Your task to perform on an android device: turn off sleep mode Image 0: 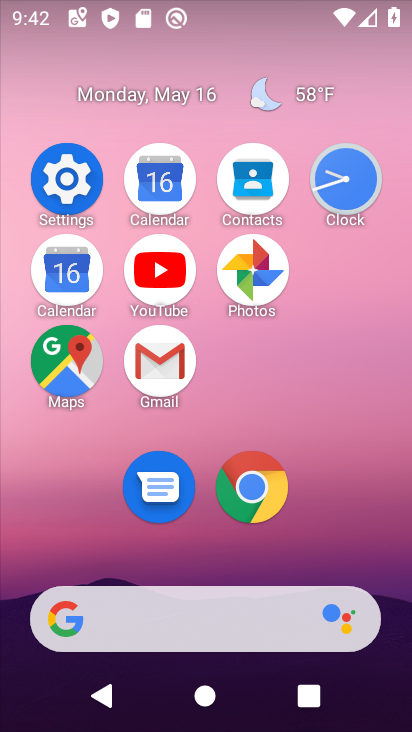
Step 0: click (73, 187)
Your task to perform on an android device: turn off sleep mode Image 1: 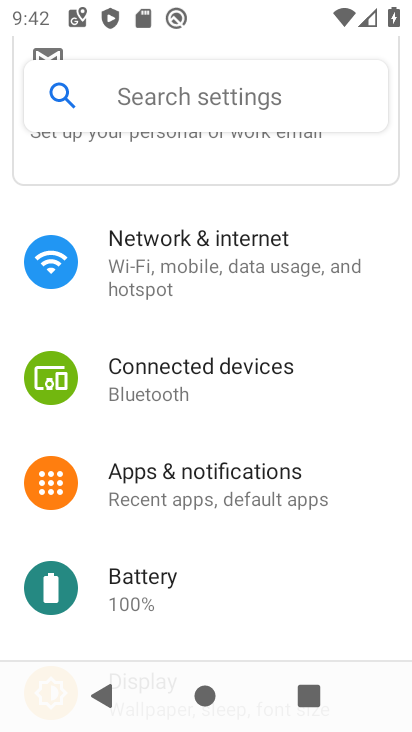
Step 1: drag from (223, 284) to (242, 215)
Your task to perform on an android device: turn off sleep mode Image 2: 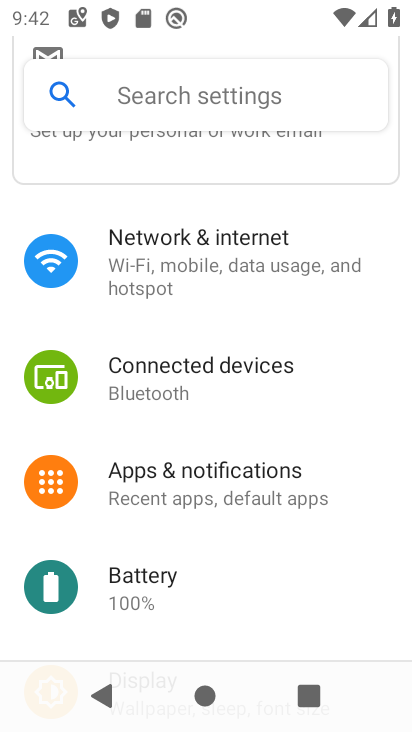
Step 2: drag from (217, 528) to (250, 163)
Your task to perform on an android device: turn off sleep mode Image 3: 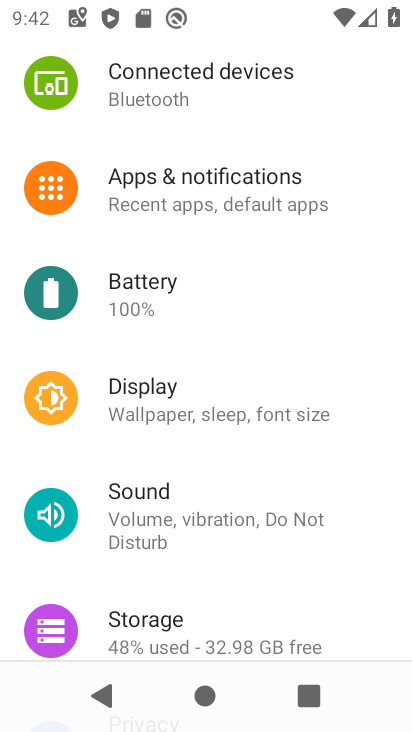
Step 3: click (235, 370)
Your task to perform on an android device: turn off sleep mode Image 4: 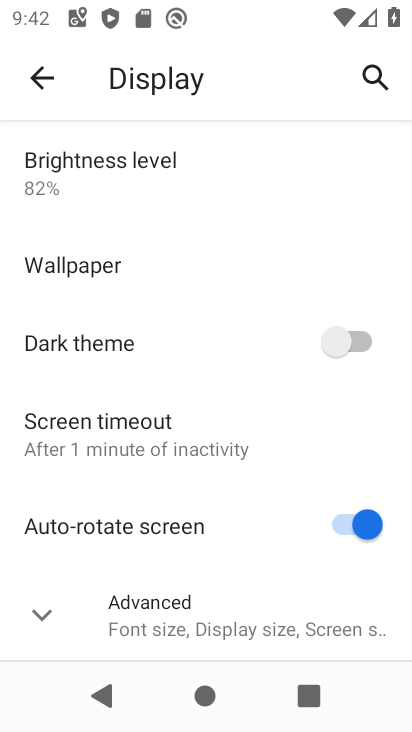
Step 4: click (171, 454)
Your task to perform on an android device: turn off sleep mode Image 5: 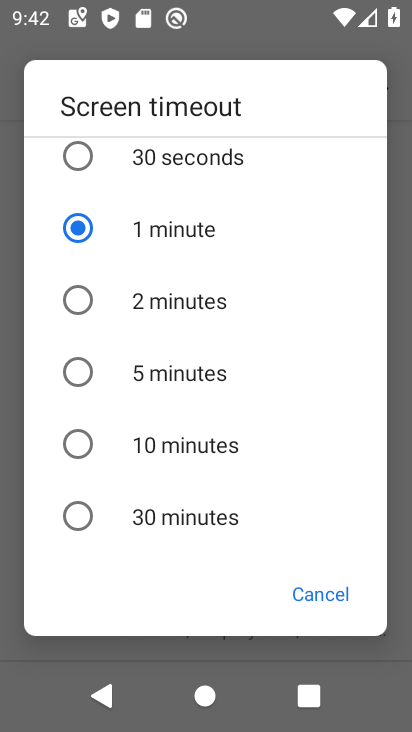
Step 5: task complete